Your task to perform on an android device: check data usage Image 0: 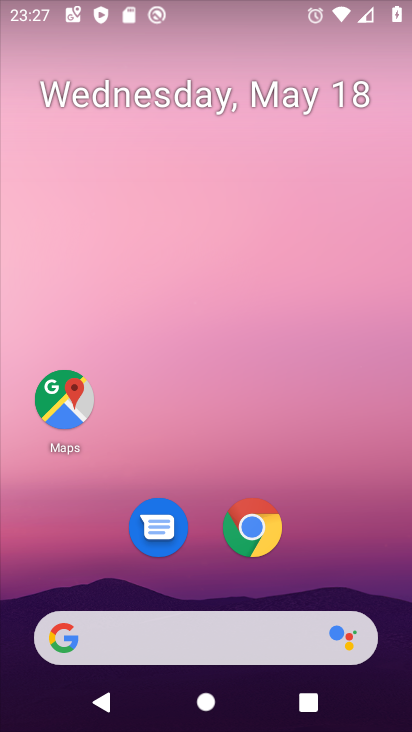
Step 0: drag from (371, 549) to (304, 72)
Your task to perform on an android device: check data usage Image 1: 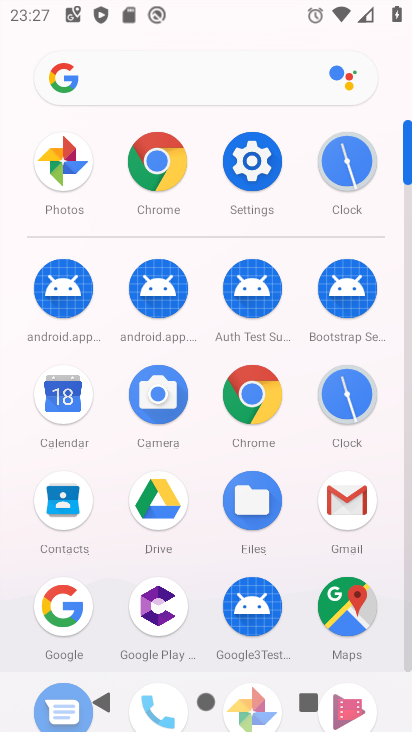
Step 1: click (237, 176)
Your task to perform on an android device: check data usage Image 2: 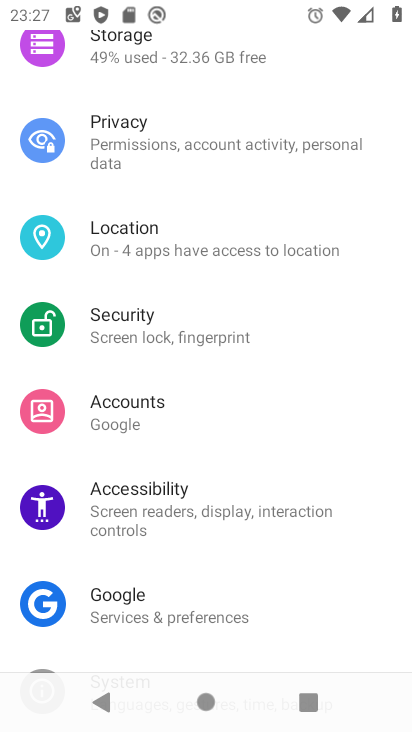
Step 2: drag from (211, 141) to (265, 602)
Your task to perform on an android device: check data usage Image 3: 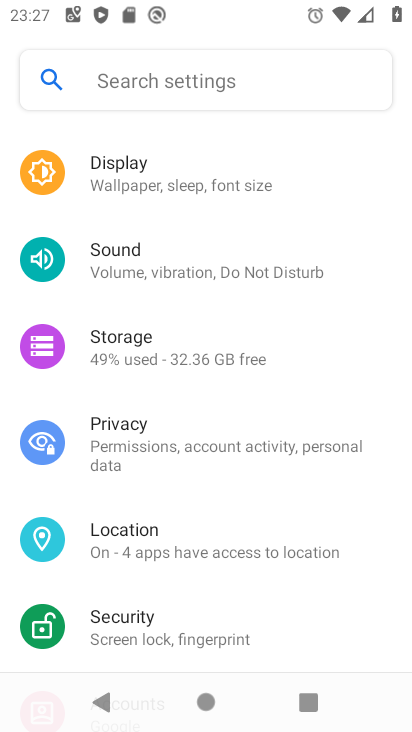
Step 3: drag from (209, 209) to (230, 489)
Your task to perform on an android device: check data usage Image 4: 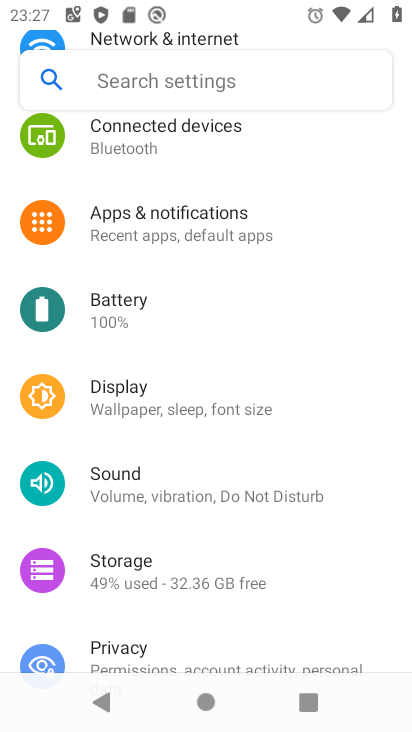
Step 4: drag from (192, 147) to (293, 443)
Your task to perform on an android device: check data usage Image 5: 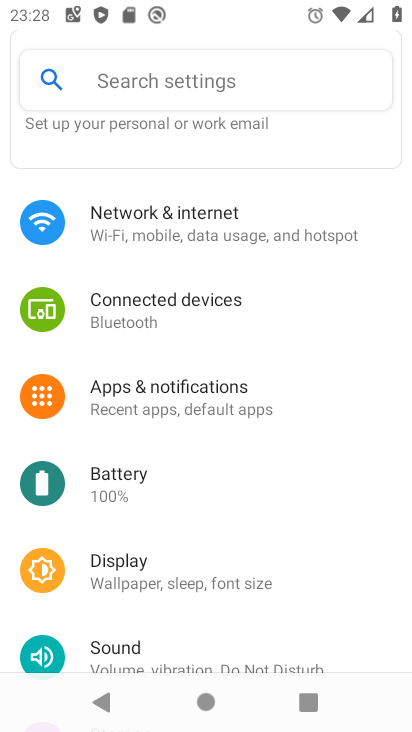
Step 5: click (239, 210)
Your task to perform on an android device: check data usage Image 6: 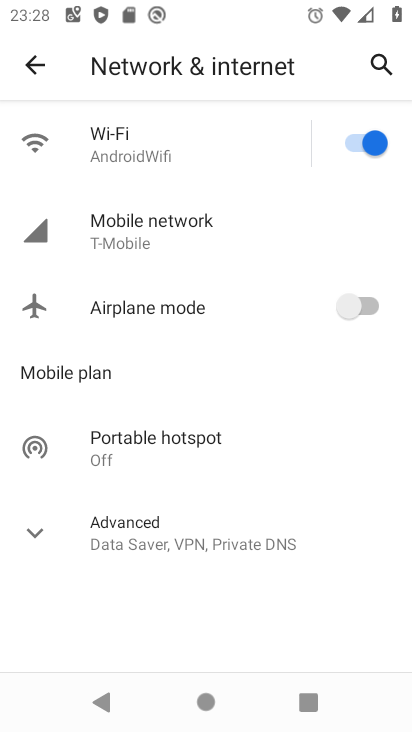
Step 6: click (178, 240)
Your task to perform on an android device: check data usage Image 7: 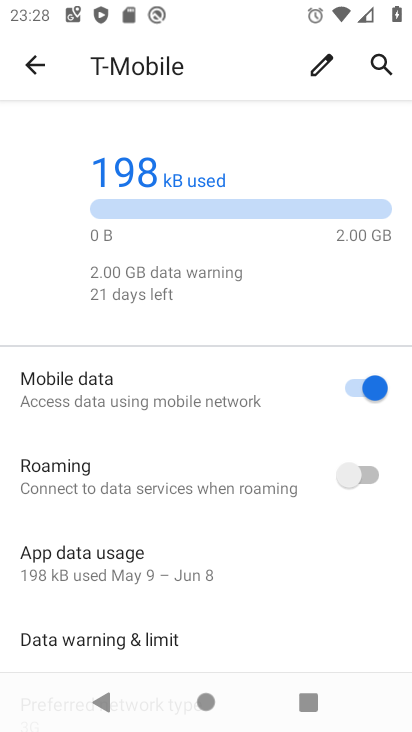
Step 7: task complete